Your task to perform on an android device: Do I have any events tomorrow? Image 0: 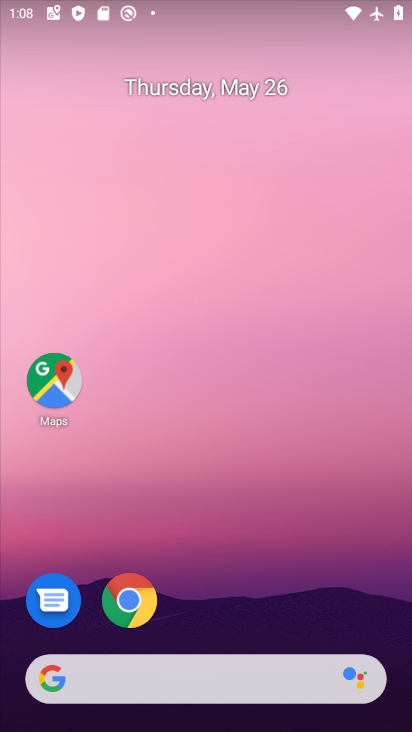
Step 0: drag from (288, 532) to (238, 97)
Your task to perform on an android device: Do I have any events tomorrow? Image 1: 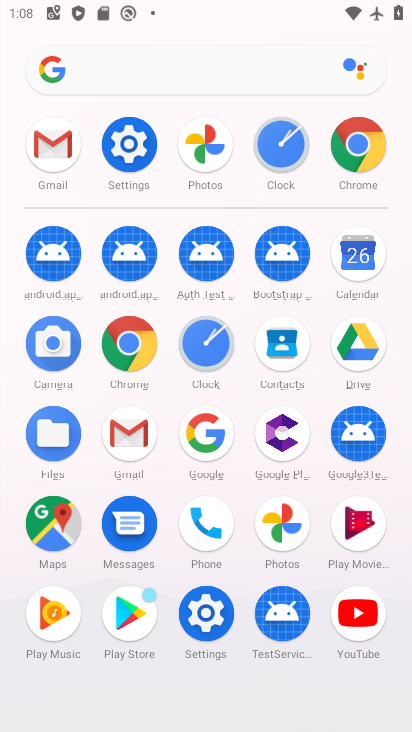
Step 1: click (359, 249)
Your task to perform on an android device: Do I have any events tomorrow? Image 2: 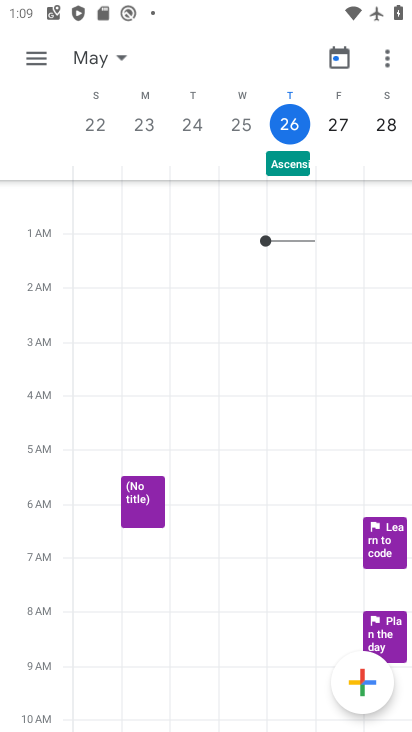
Step 2: click (348, 126)
Your task to perform on an android device: Do I have any events tomorrow? Image 3: 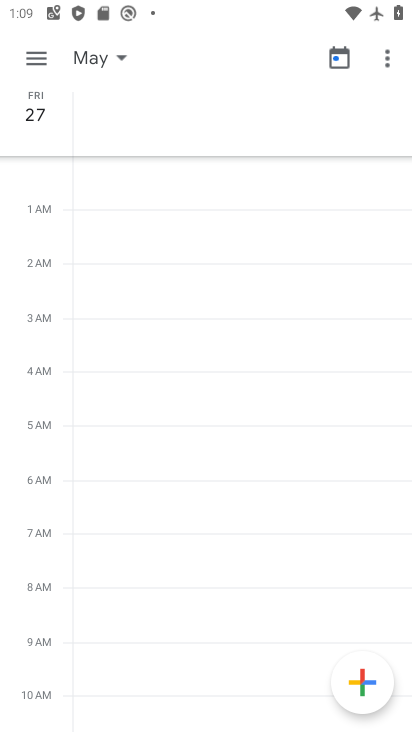
Step 3: task complete